Your task to perform on an android device: Show me recent news Image 0: 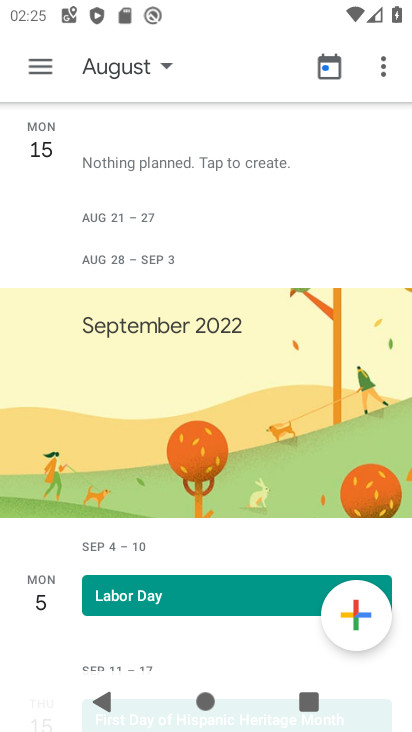
Step 0: press home button
Your task to perform on an android device: Show me recent news Image 1: 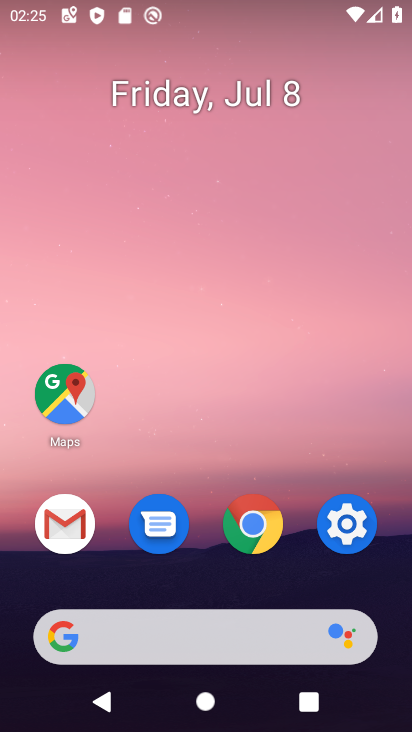
Step 1: click (192, 637)
Your task to perform on an android device: Show me recent news Image 2: 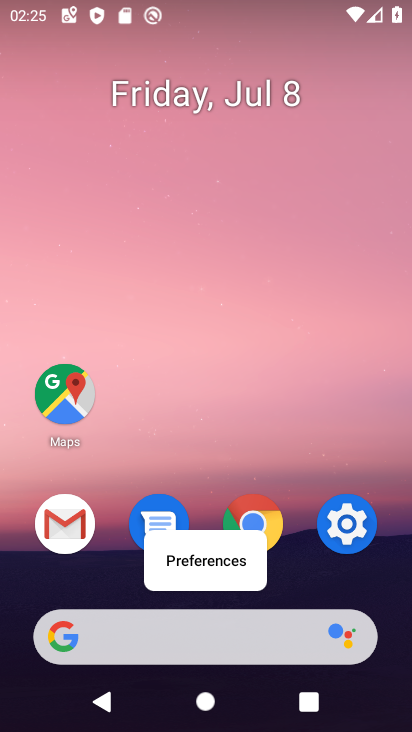
Step 2: click (145, 636)
Your task to perform on an android device: Show me recent news Image 3: 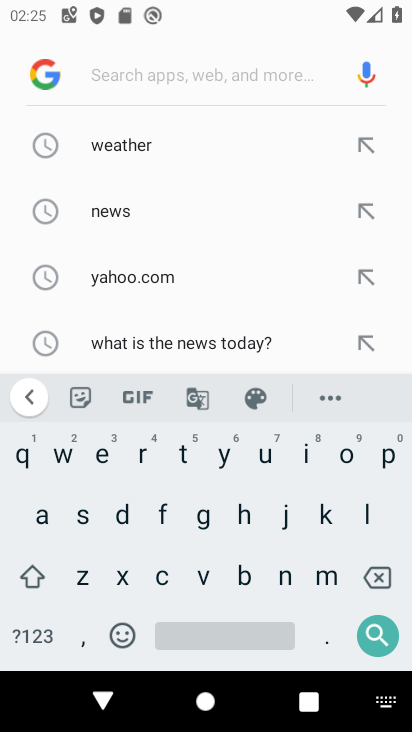
Step 3: click (135, 455)
Your task to perform on an android device: Show me recent news Image 4: 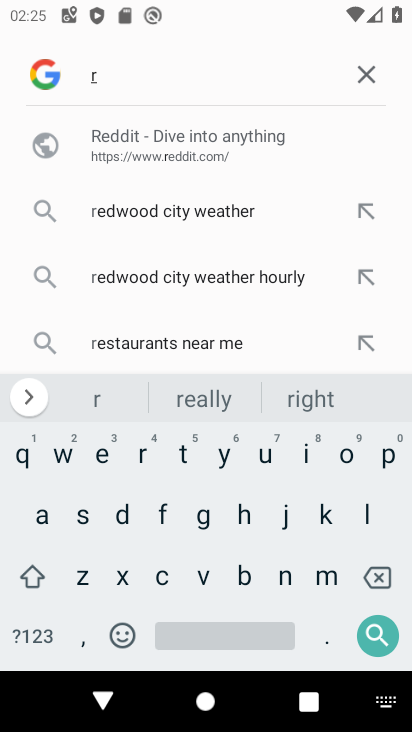
Step 4: click (103, 448)
Your task to perform on an android device: Show me recent news Image 5: 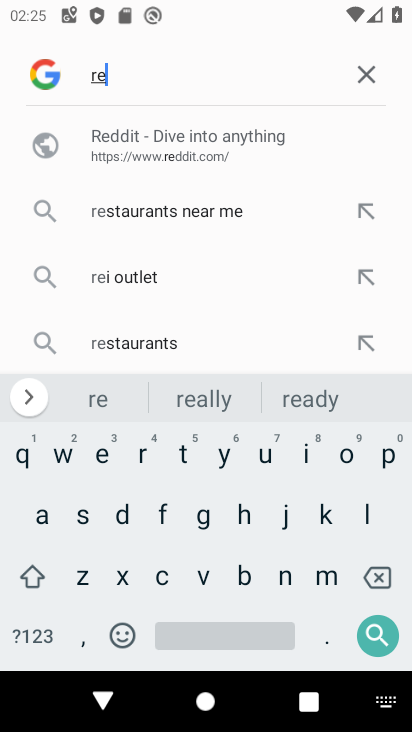
Step 5: click (161, 578)
Your task to perform on an android device: Show me recent news Image 6: 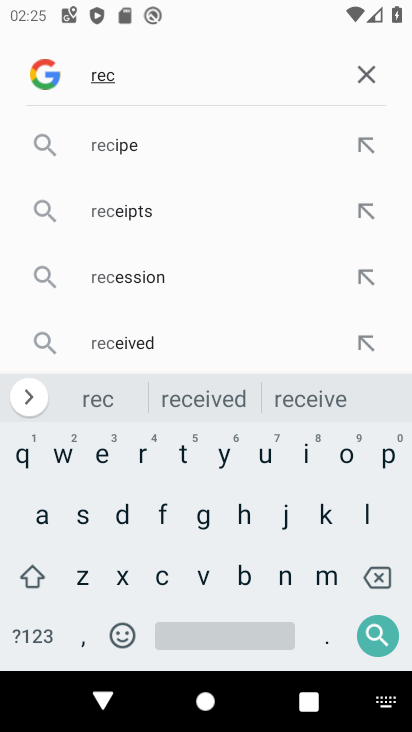
Step 6: click (97, 458)
Your task to perform on an android device: Show me recent news Image 7: 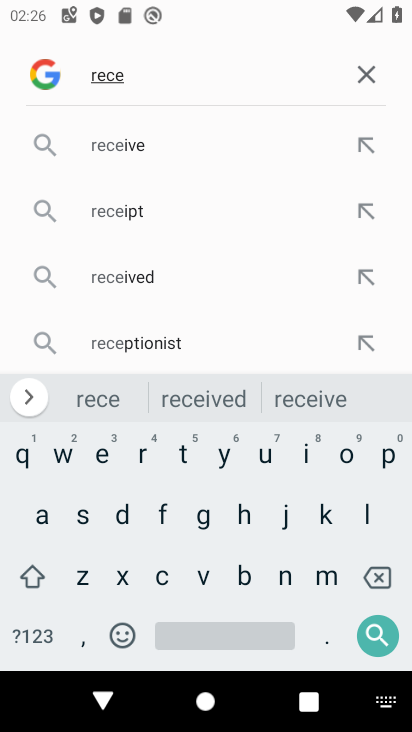
Step 7: click (281, 576)
Your task to perform on an android device: Show me recent news Image 8: 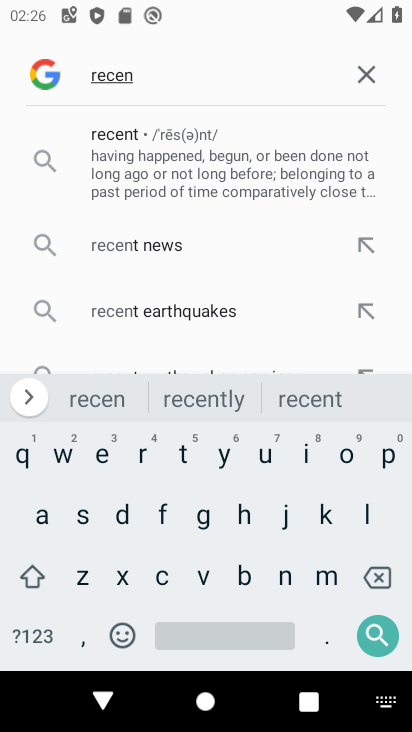
Step 8: click (161, 250)
Your task to perform on an android device: Show me recent news Image 9: 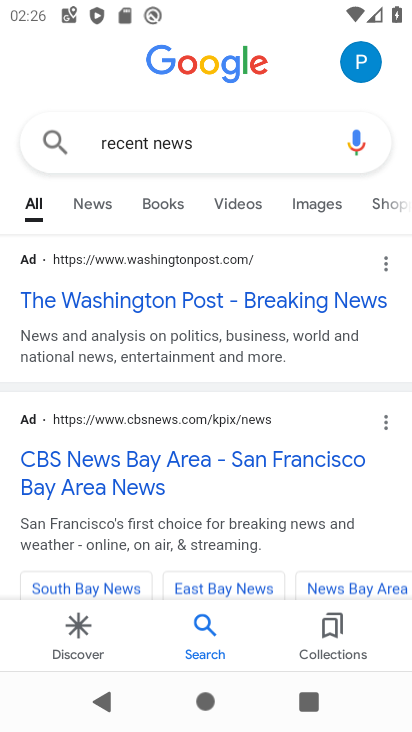
Step 9: task complete